Your task to perform on an android device: clear all cookies in the chrome app Image 0: 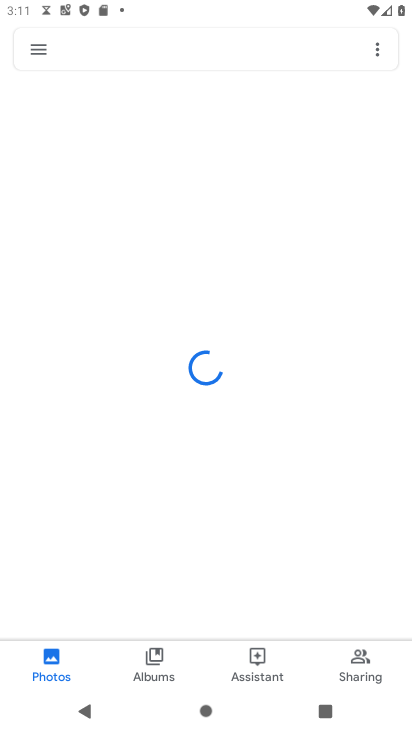
Step 0: press home button
Your task to perform on an android device: clear all cookies in the chrome app Image 1: 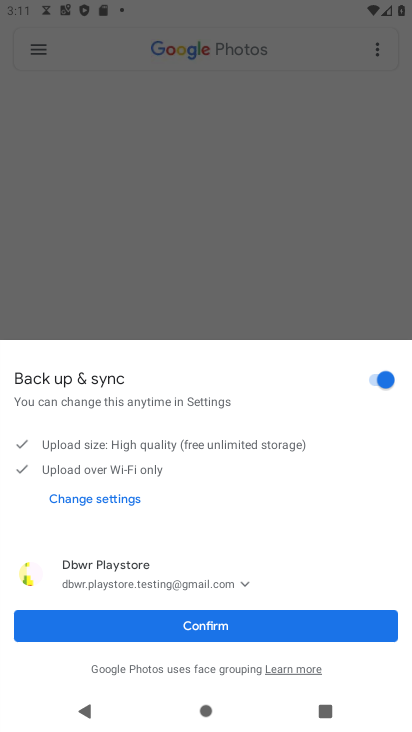
Step 1: press home button
Your task to perform on an android device: clear all cookies in the chrome app Image 2: 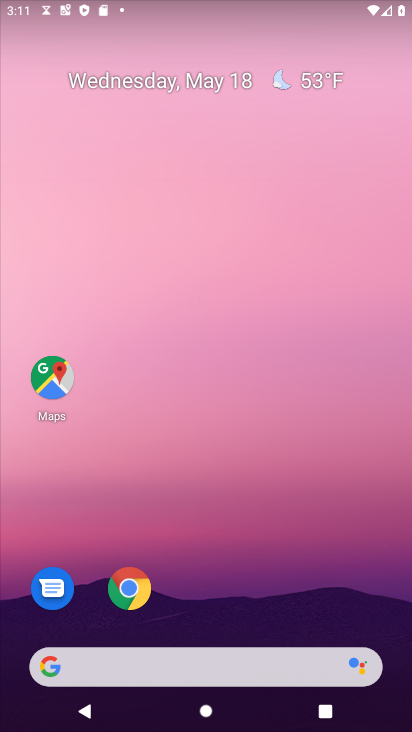
Step 2: click (135, 605)
Your task to perform on an android device: clear all cookies in the chrome app Image 3: 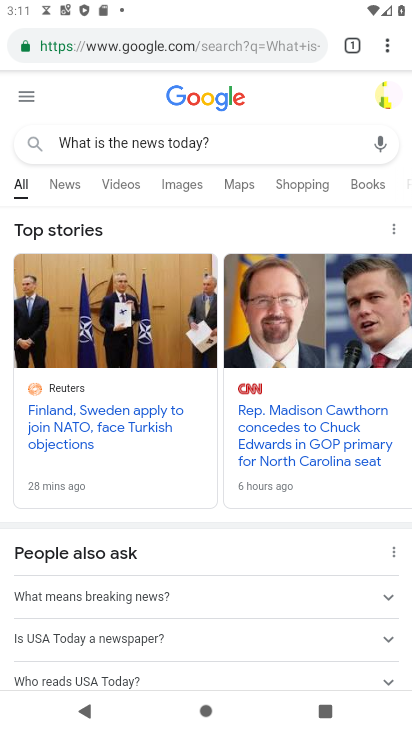
Step 3: drag from (382, 40) to (258, 506)
Your task to perform on an android device: clear all cookies in the chrome app Image 4: 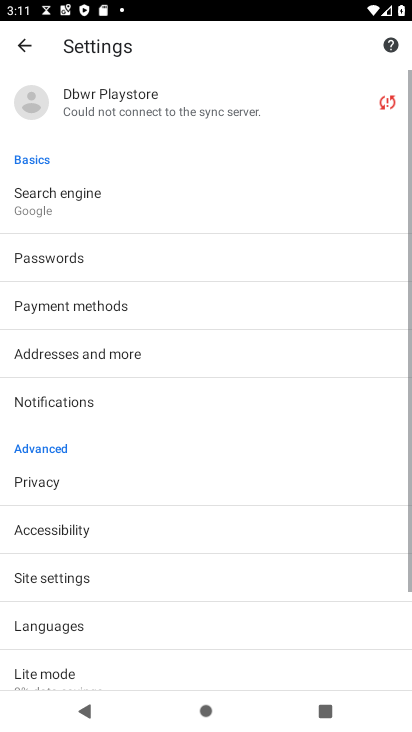
Step 4: click (47, 479)
Your task to perform on an android device: clear all cookies in the chrome app Image 5: 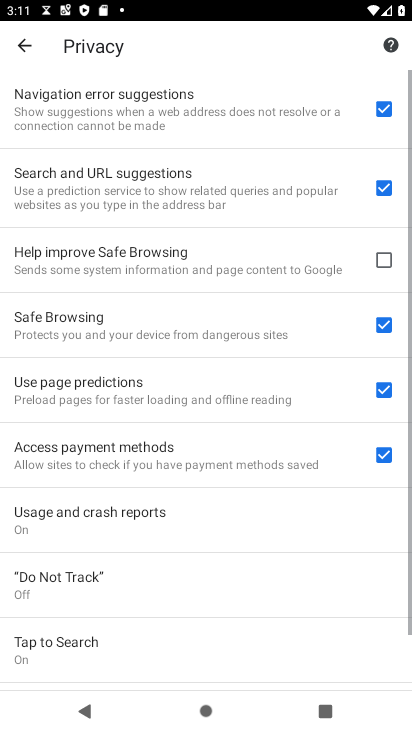
Step 5: drag from (156, 652) to (142, 235)
Your task to perform on an android device: clear all cookies in the chrome app Image 6: 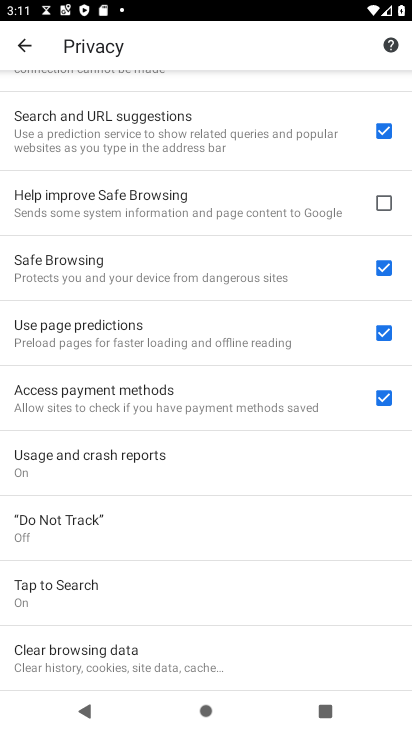
Step 6: click (191, 661)
Your task to perform on an android device: clear all cookies in the chrome app Image 7: 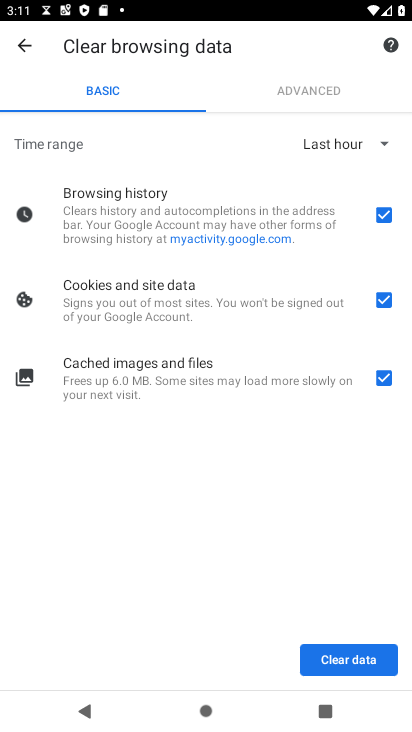
Step 7: click (349, 671)
Your task to perform on an android device: clear all cookies in the chrome app Image 8: 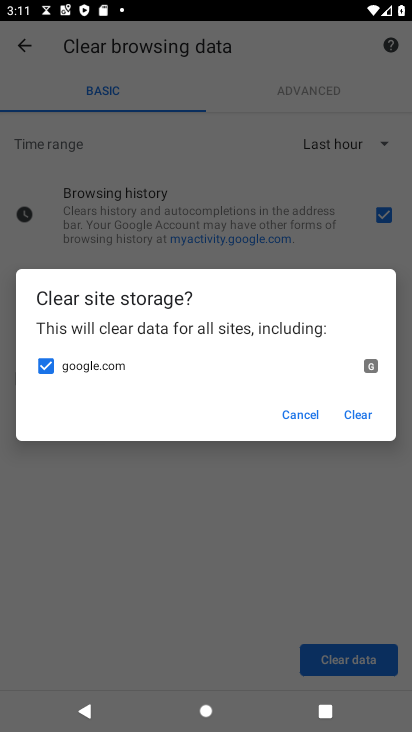
Step 8: click (338, 415)
Your task to perform on an android device: clear all cookies in the chrome app Image 9: 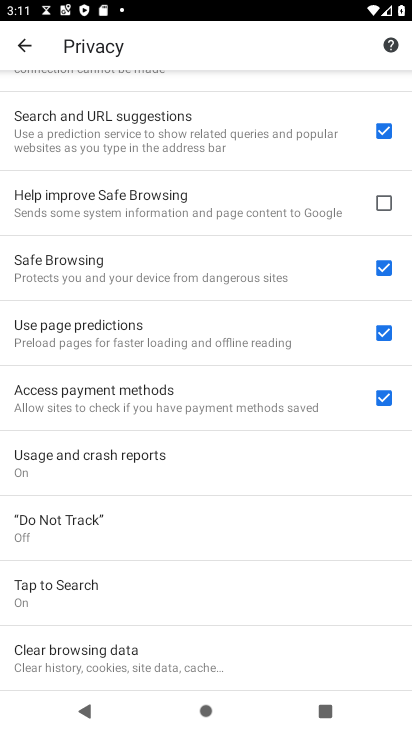
Step 9: task complete